Your task to perform on an android device: Turn on the flashlight Image 0: 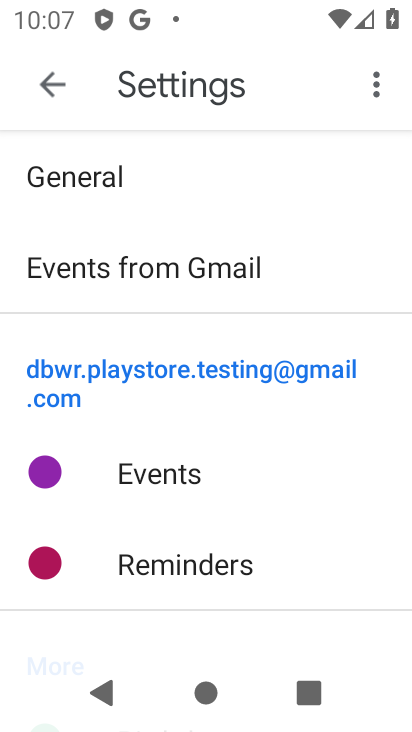
Step 0: press home button
Your task to perform on an android device: Turn on the flashlight Image 1: 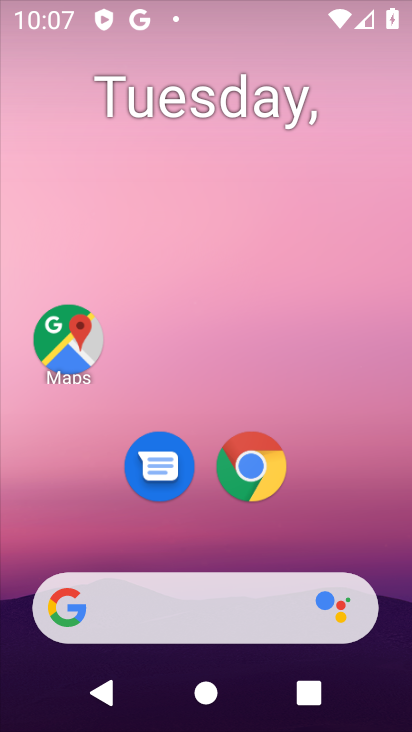
Step 1: drag from (373, 510) to (307, 104)
Your task to perform on an android device: Turn on the flashlight Image 2: 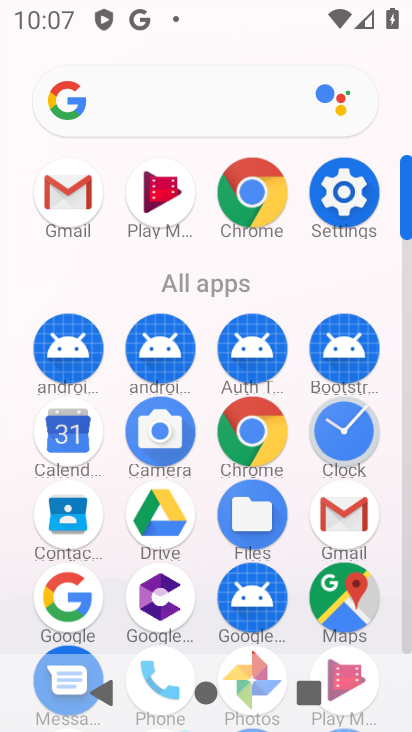
Step 2: click (340, 183)
Your task to perform on an android device: Turn on the flashlight Image 3: 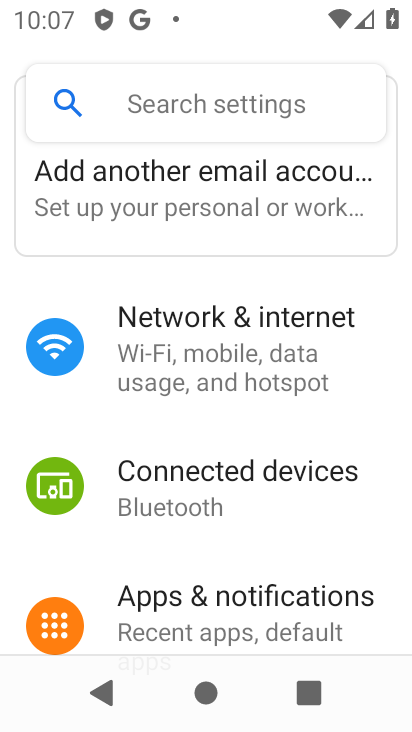
Step 3: drag from (228, 360) to (315, 44)
Your task to perform on an android device: Turn on the flashlight Image 4: 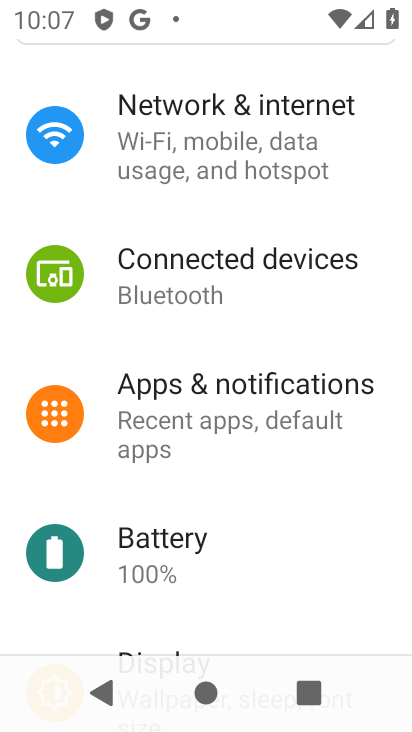
Step 4: drag from (253, 517) to (354, 136)
Your task to perform on an android device: Turn on the flashlight Image 5: 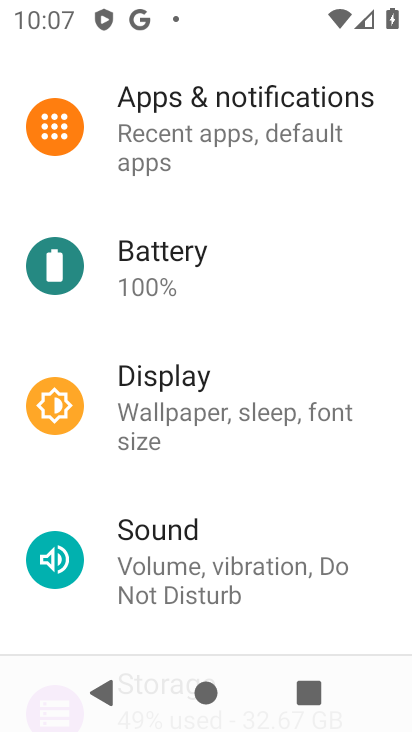
Step 5: drag from (296, 251) to (253, 596)
Your task to perform on an android device: Turn on the flashlight Image 6: 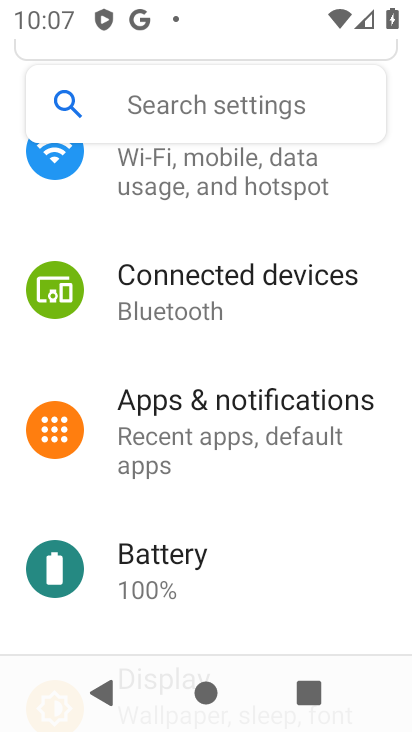
Step 6: drag from (293, 374) to (296, 546)
Your task to perform on an android device: Turn on the flashlight Image 7: 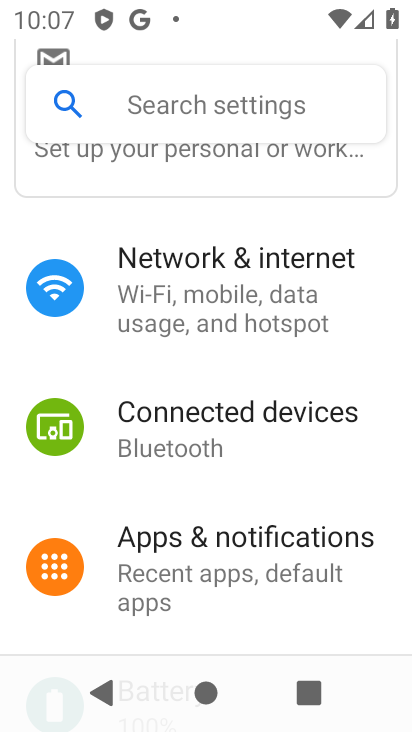
Step 7: drag from (291, 536) to (349, 188)
Your task to perform on an android device: Turn on the flashlight Image 8: 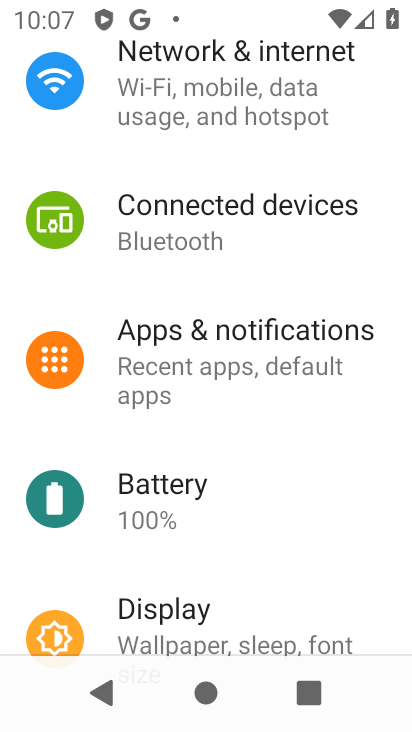
Step 8: click (176, 629)
Your task to perform on an android device: Turn on the flashlight Image 9: 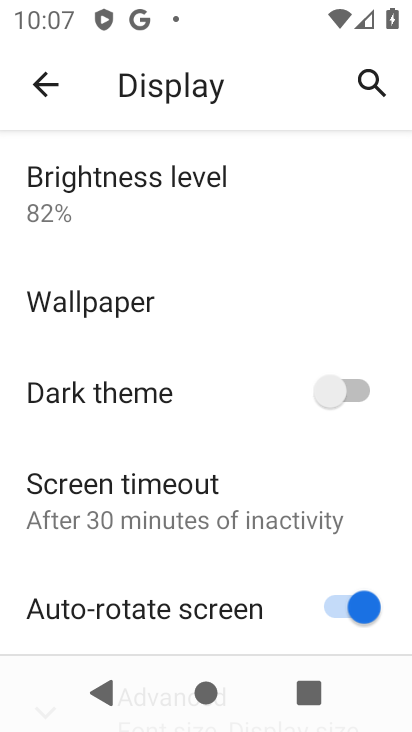
Step 9: task complete